Your task to perform on an android device: allow notifications from all sites in the chrome app Image 0: 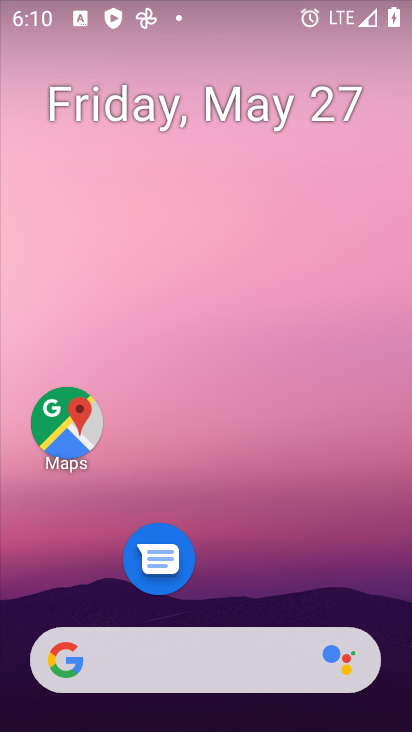
Step 0: drag from (288, 659) to (281, 7)
Your task to perform on an android device: allow notifications from all sites in the chrome app Image 1: 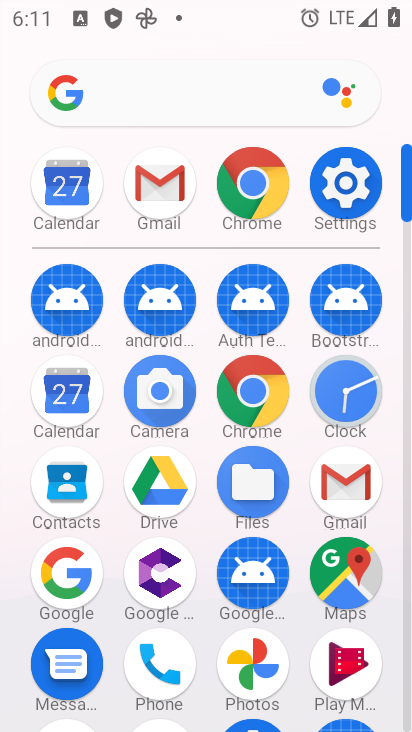
Step 1: click (257, 401)
Your task to perform on an android device: allow notifications from all sites in the chrome app Image 2: 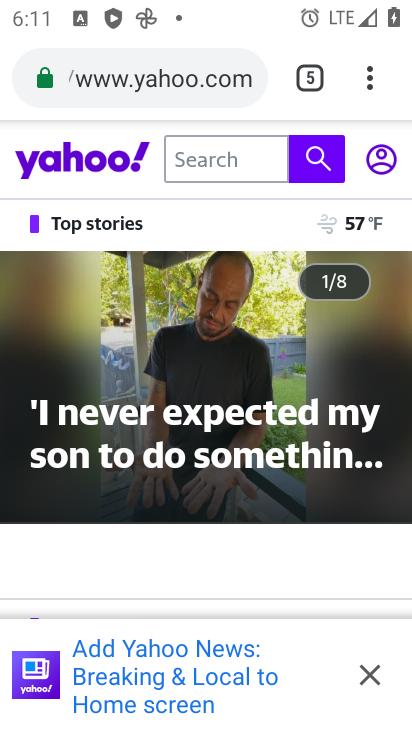
Step 2: drag from (356, 80) to (253, 612)
Your task to perform on an android device: allow notifications from all sites in the chrome app Image 3: 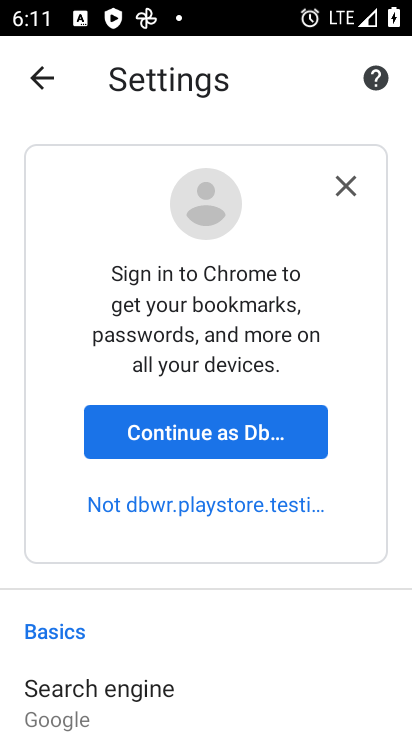
Step 3: drag from (243, 658) to (288, 258)
Your task to perform on an android device: allow notifications from all sites in the chrome app Image 4: 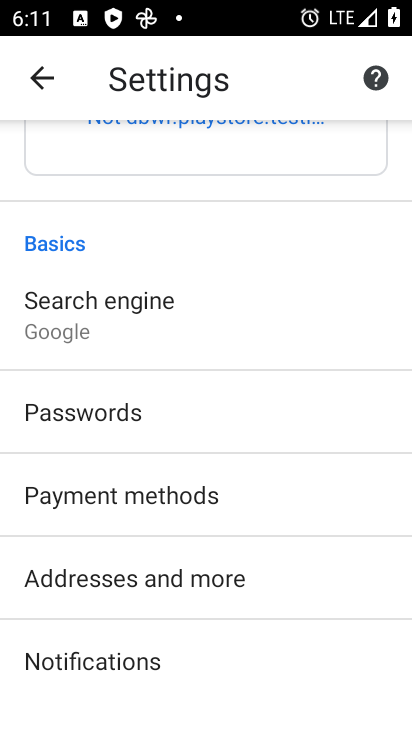
Step 4: drag from (330, 659) to (312, 173)
Your task to perform on an android device: allow notifications from all sites in the chrome app Image 5: 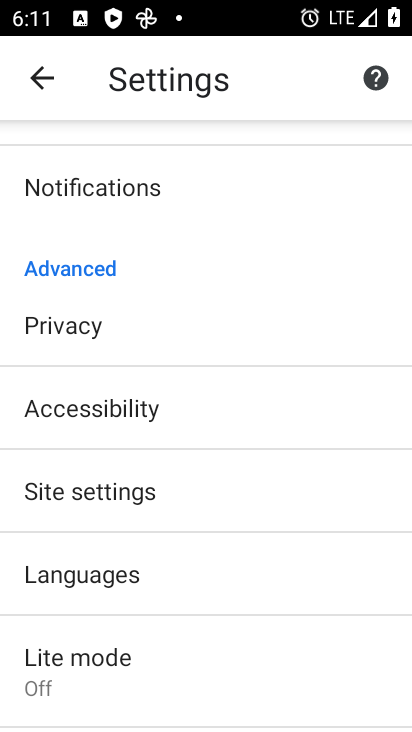
Step 5: drag from (293, 606) to (300, 310)
Your task to perform on an android device: allow notifications from all sites in the chrome app Image 6: 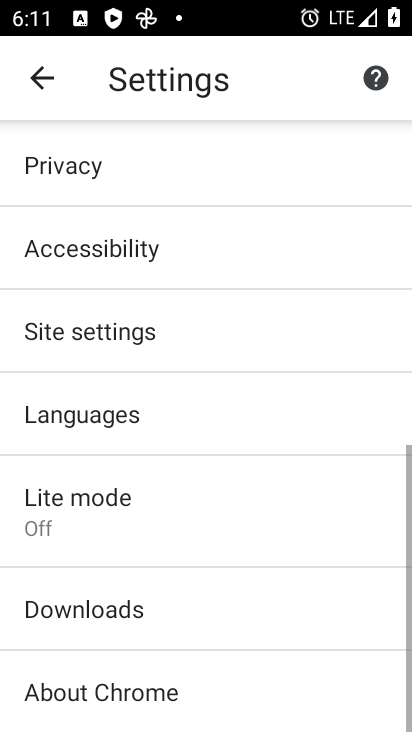
Step 6: drag from (210, 578) to (197, 226)
Your task to perform on an android device: allow notifications from all sites in the chrome app Image 7: 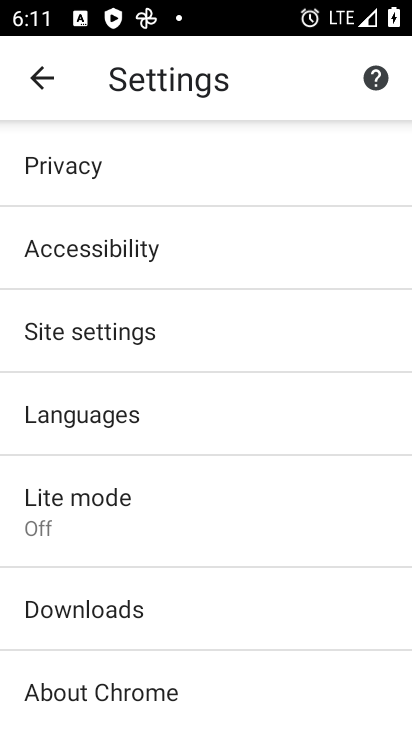
Step 7: click (210, 346)
Your task to perform on an android device: allow notifications from all sites in the chrome app Image 8: 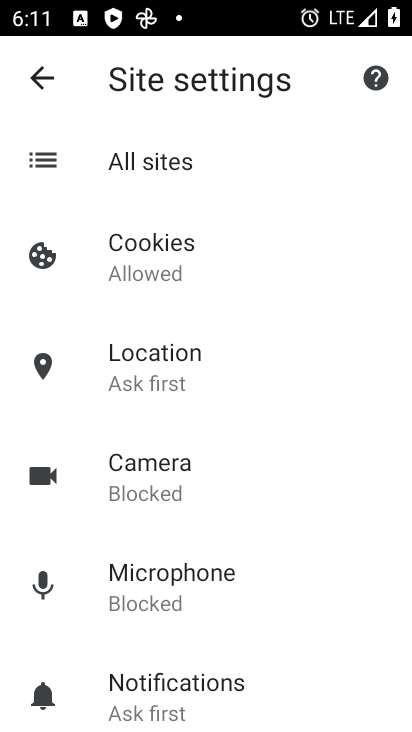
Step 8: click (230, 684)
Your task to perform on an android device: allow notifications from all sites in the chrome app Image 9: 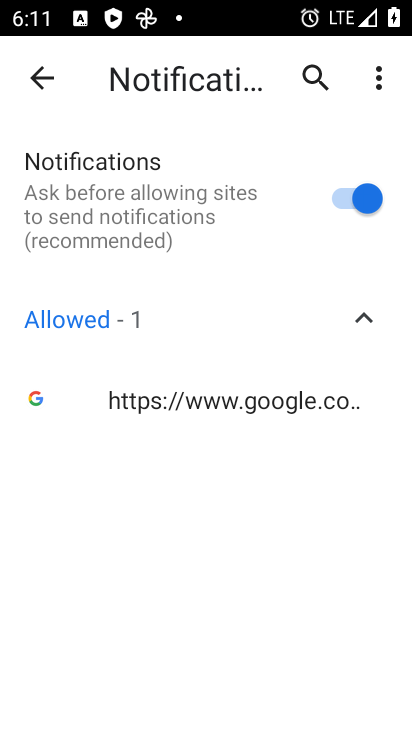
Step 9: click (340, 398)
Your task to perform on an android device: allow notifications from all sites in the chrome app Image 10: 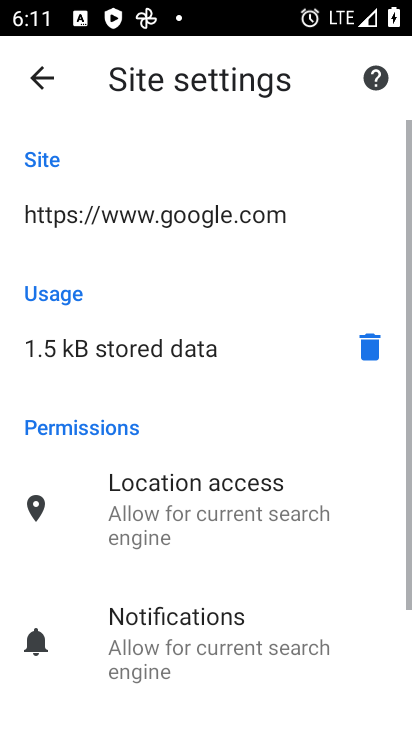
Step 10: task complete